Your task to perform on an android device: Search for seafood restaurants on Google Maps Image 0: 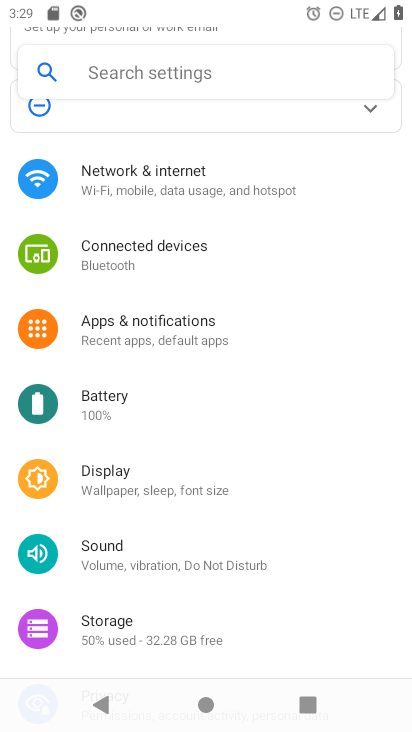
Step 0: press home button
Your task to perform on an android device: Search for seafood restaurants on Google Maps Image 1: 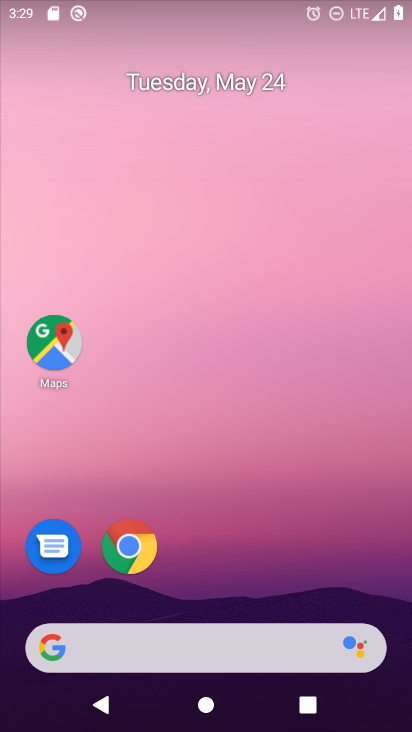
Step 1: drag from (339, 602) to (289, 34)
Your task to perform on an android device: Search for seafood restaurants on Google Maps Image 2: 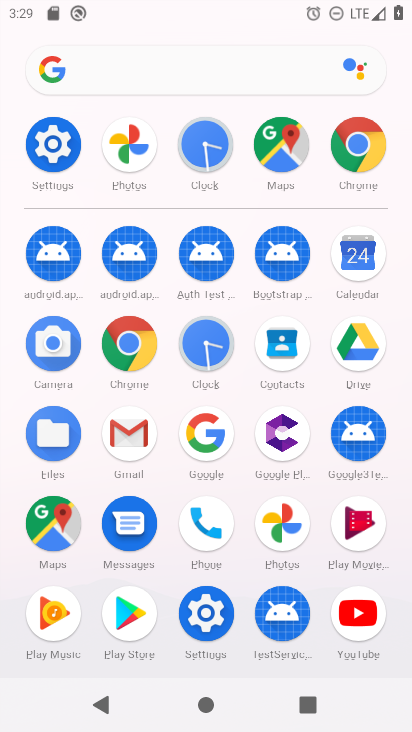
Step 2: click (66, 521)
Your task to perform on an android device: Search for seafood restaurants on Google Maps Image 3: 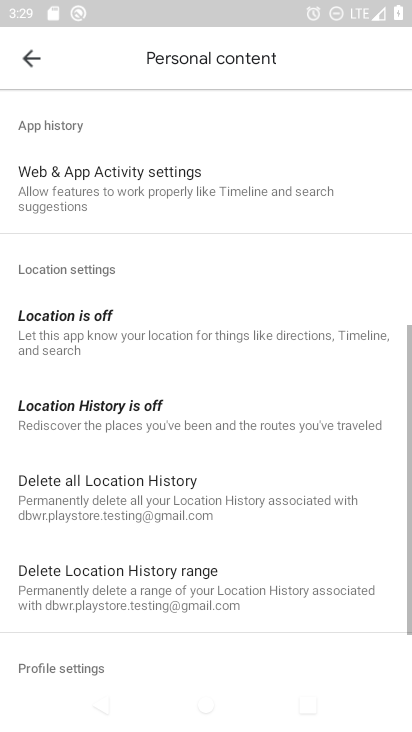
Step 3: press back button
Your task to perform on an android device: Search for seafood restaurants on Google Maps Image 4: 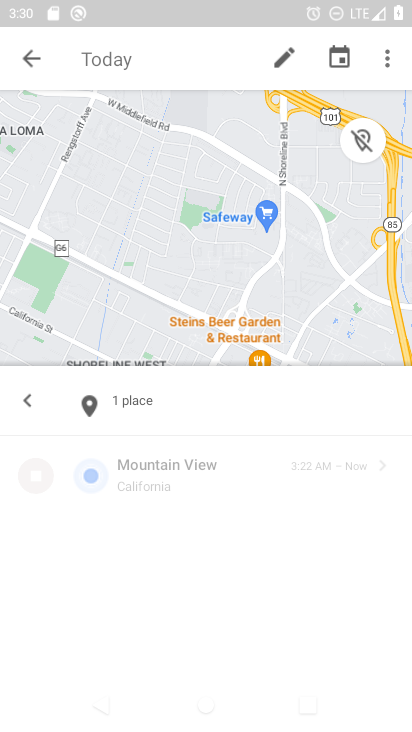
Step 4: press back button
Your task to perform on an android device: Search for seafood restaurants on Google Maps Image 5: 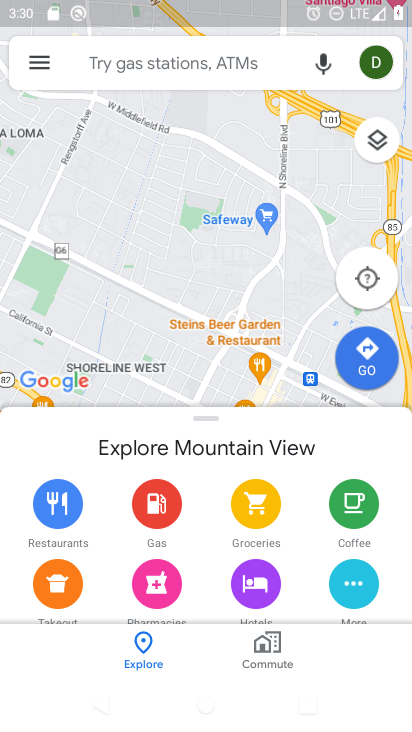
Step 5: click (42, 57)
Your task to perform on an android device: Search for seafood restaurants on Google Maps Image 6: 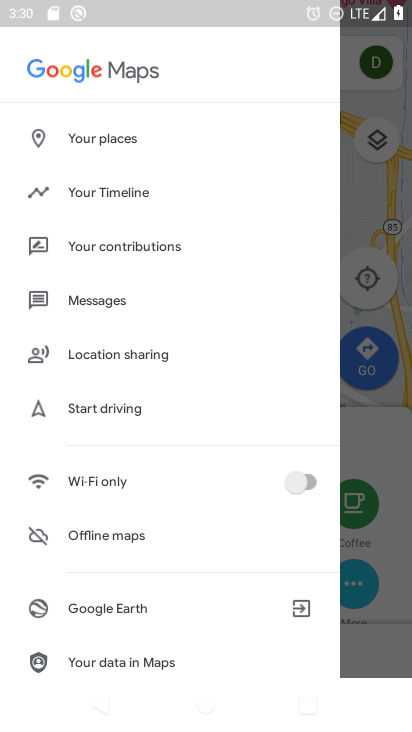
Step 6: click (357, 312)
Your task to perform on an android device: Search for seafood restaurants on Google Maps Image 7: 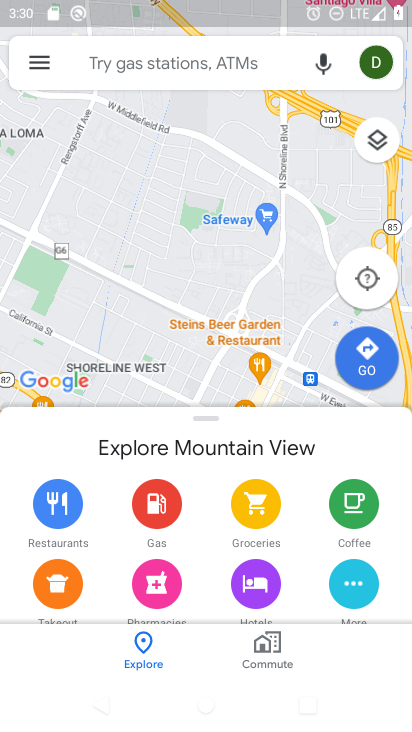
Step 7: click (204, 61)
Your task to perform on an android device: Search for seafood restaurants on Google Maps Image 8: 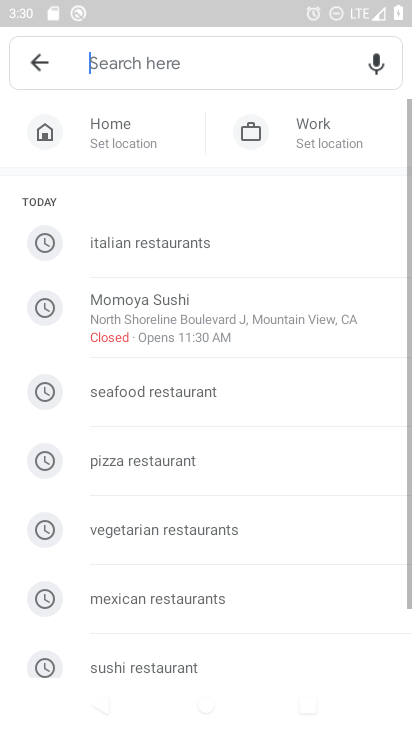
Step 8: click (204, 61)
Your task to perform on an android device: Search for seafood restaurants on Google Maps Image 9: 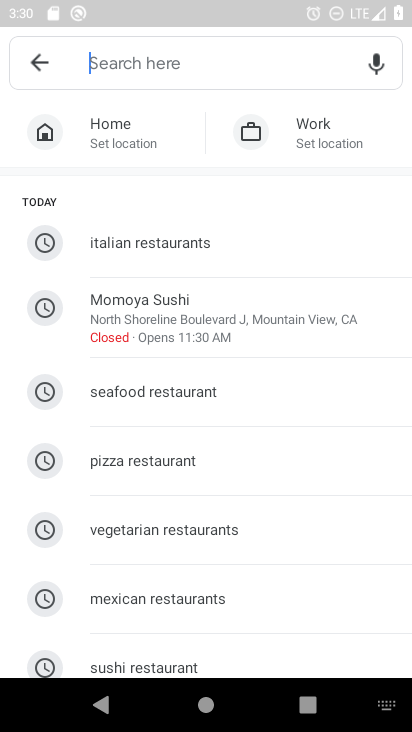
Step 9: click (192, 380)
Your task to perform on an android device: Search for seafood restaurants on Google Maps Image 10: 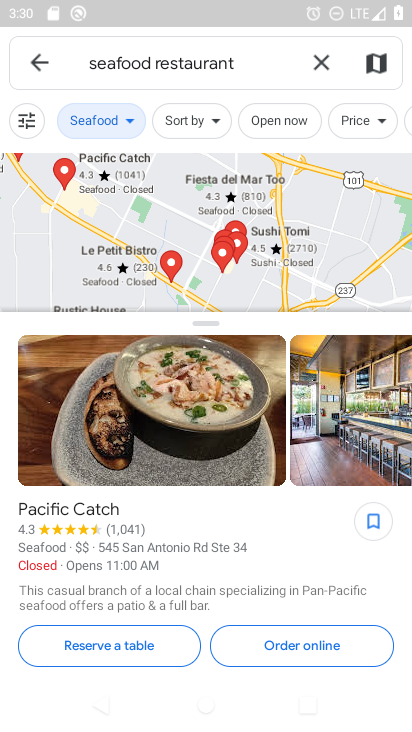
Step 10: task complete